Your task to perform on an android device: toggle notification dots Image 0: 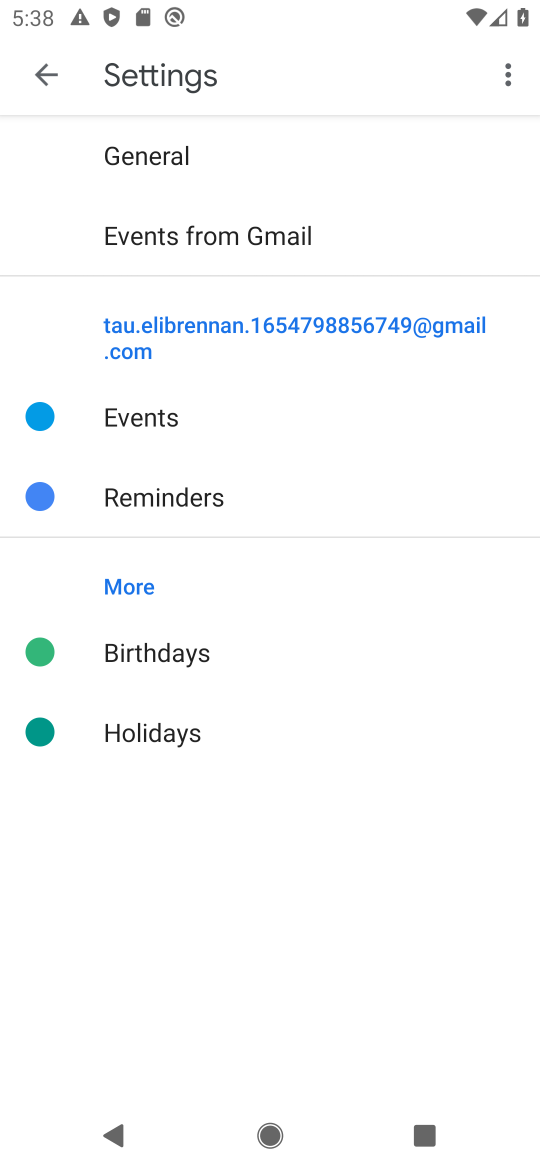
Step 0: press home button
Your task to perform on an android device: toggle notification dots Image 1: 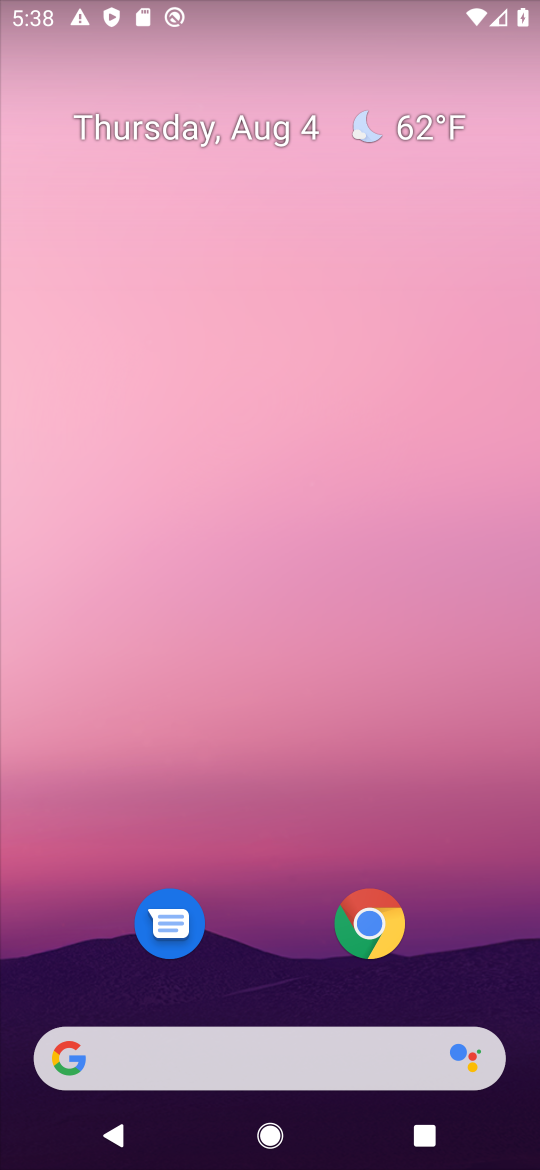
Step 1: drag from (291, 924) to (275, 275)
Your task to perform on an android device: toggle notification dots Image 2: 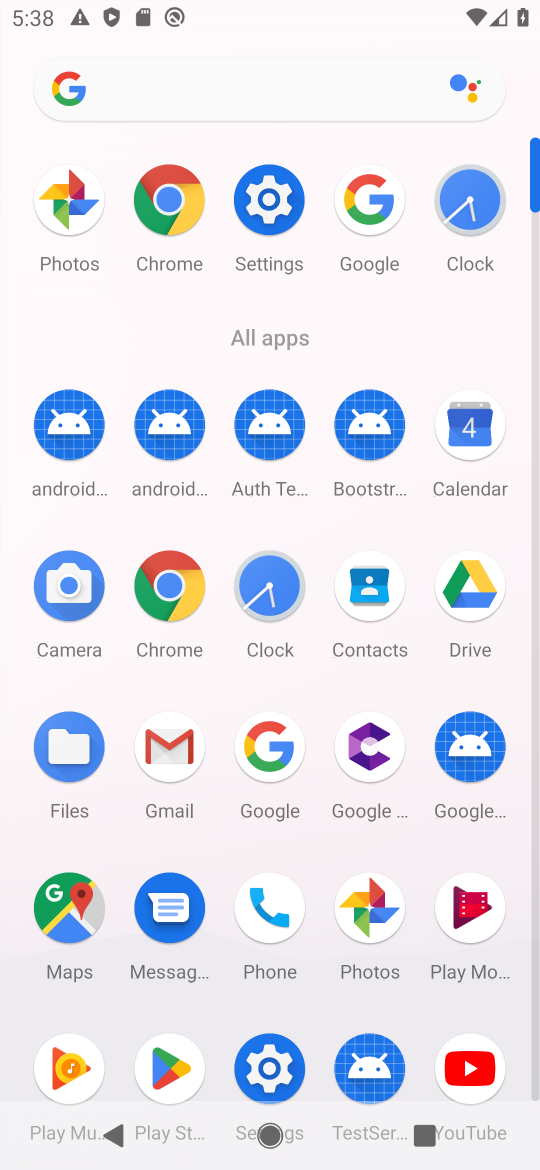
Step 2: click (266, 226)
Your task to perform on an android device: toggle notification dots Image 3: 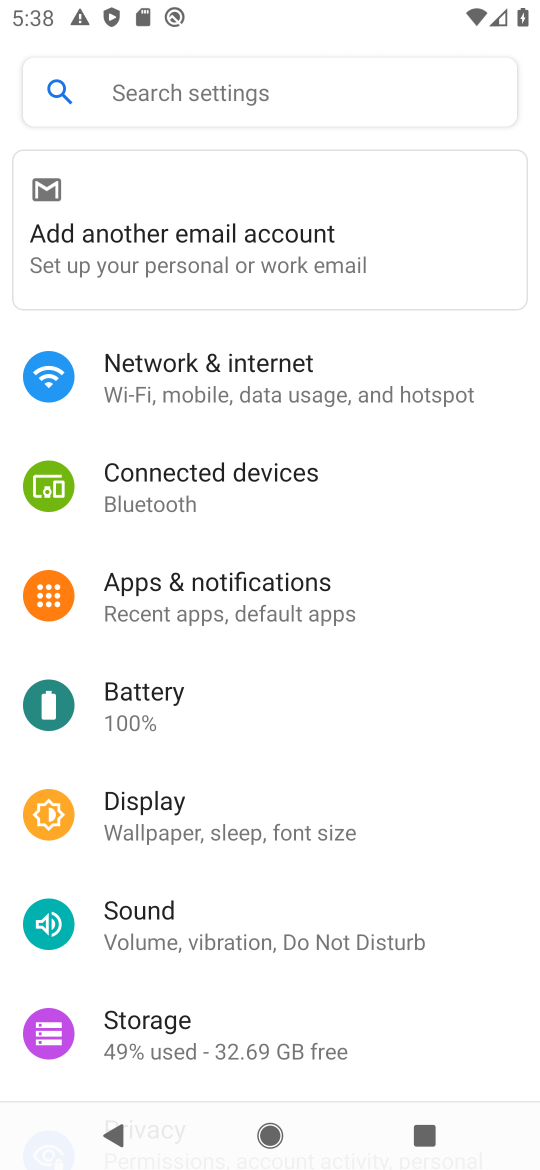
Step 3: click (256, 609)
Your task to perform on an android device: toggle notification dots Image 4: 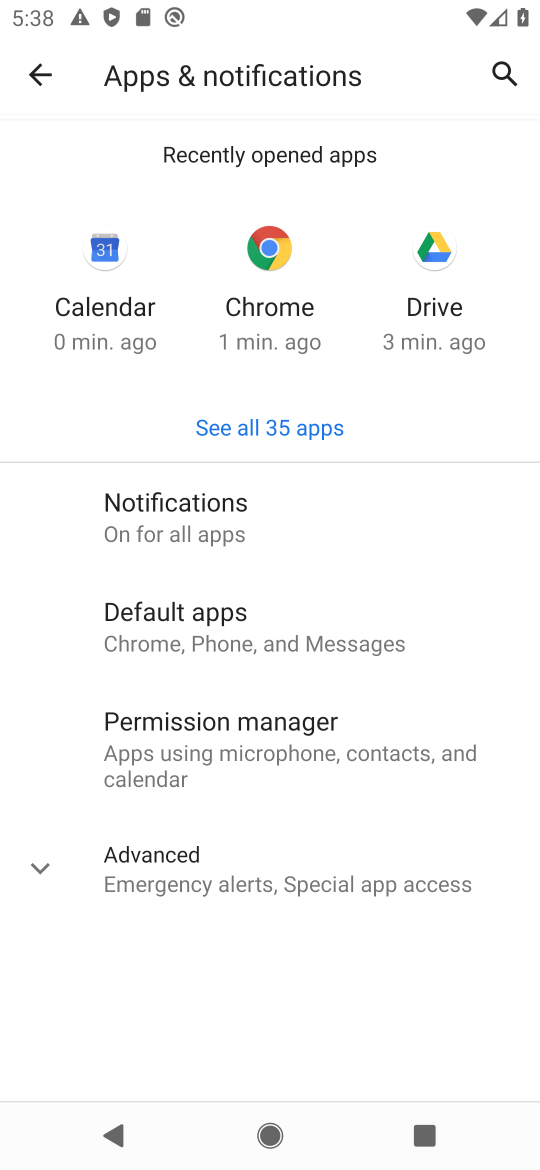
Step 4: click (284, 852)
Your task to perform on an android device: toggle notification dots Image 5: 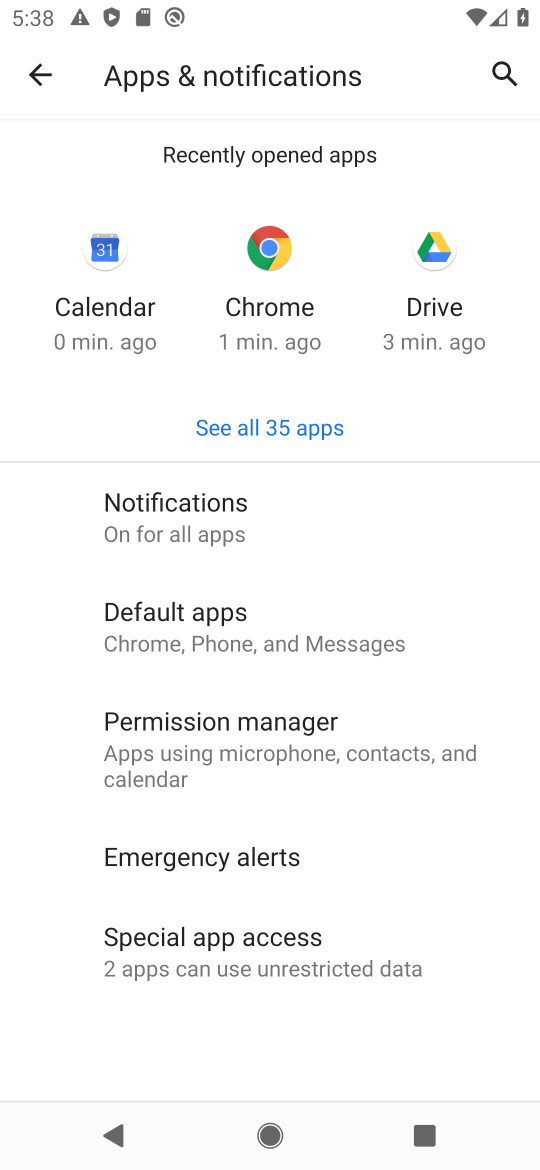
Step 5: click (192, 536)
Your task to perform on an android device: toggle notification dots Image 6: 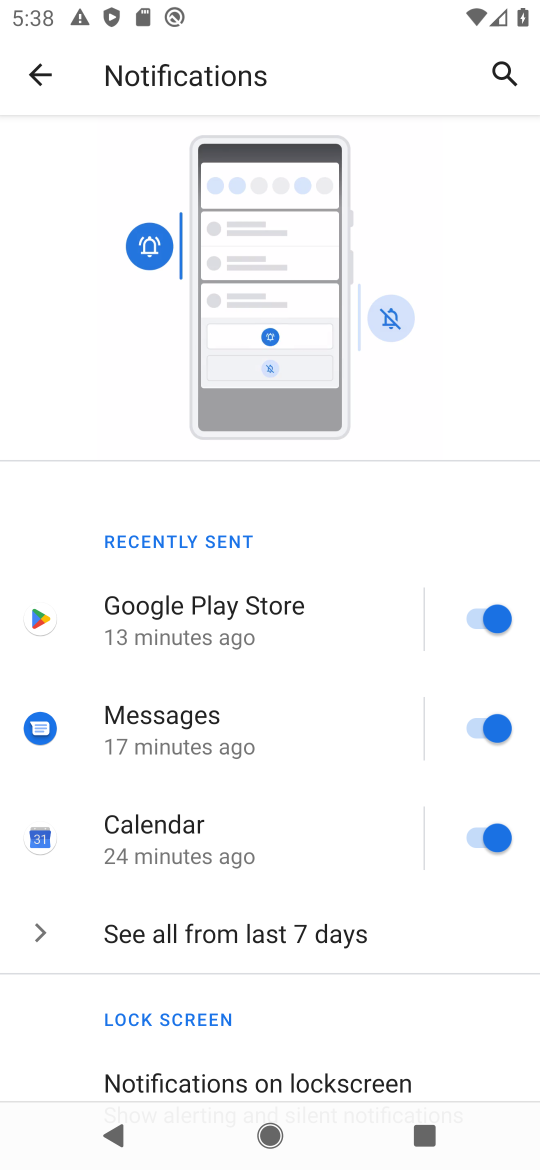
Step 6: drag from (310, 940) to (225, 541)
Your task to perform on an android device: toggle notification dots Image 7: 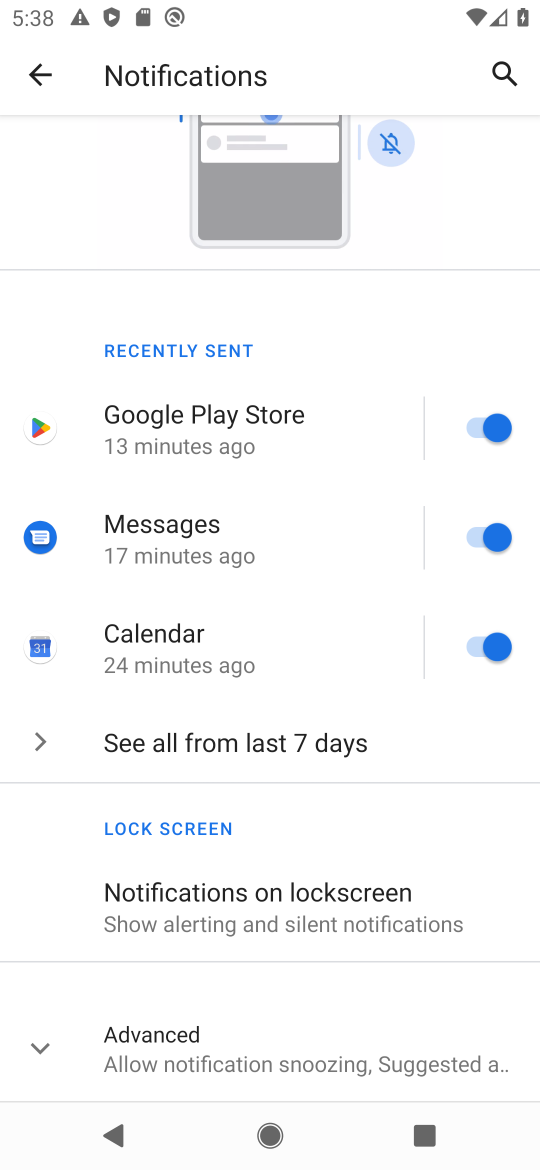
Step 7: drag from (385, 1012) to (287, 570)
Your task to perform on an android device: toggle notification dots Image 8: 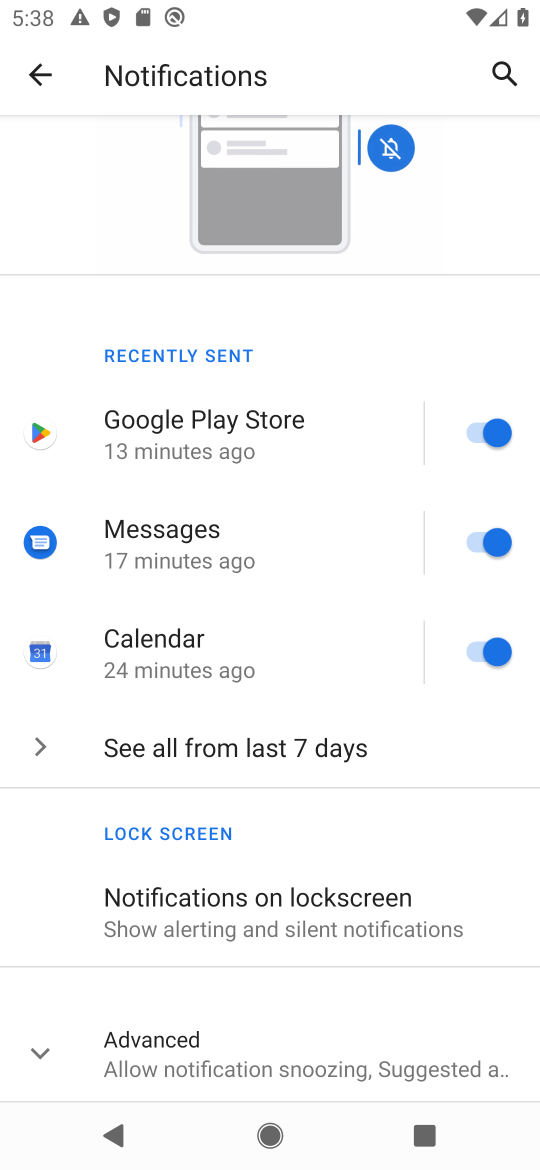
Step 8: click (391, 1030)
Your task to perform on an android device: toggle notification dots Image 9: 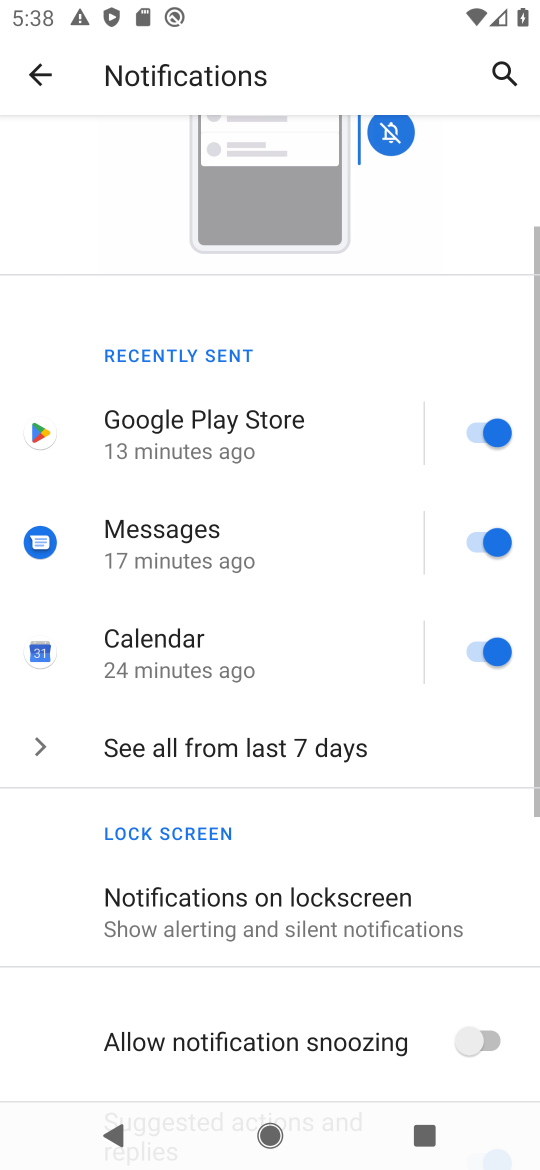
Step 9: drag from (391, 1030) to (321, 618)
Your task to perform on an android device: toggle notification dots Image 10: 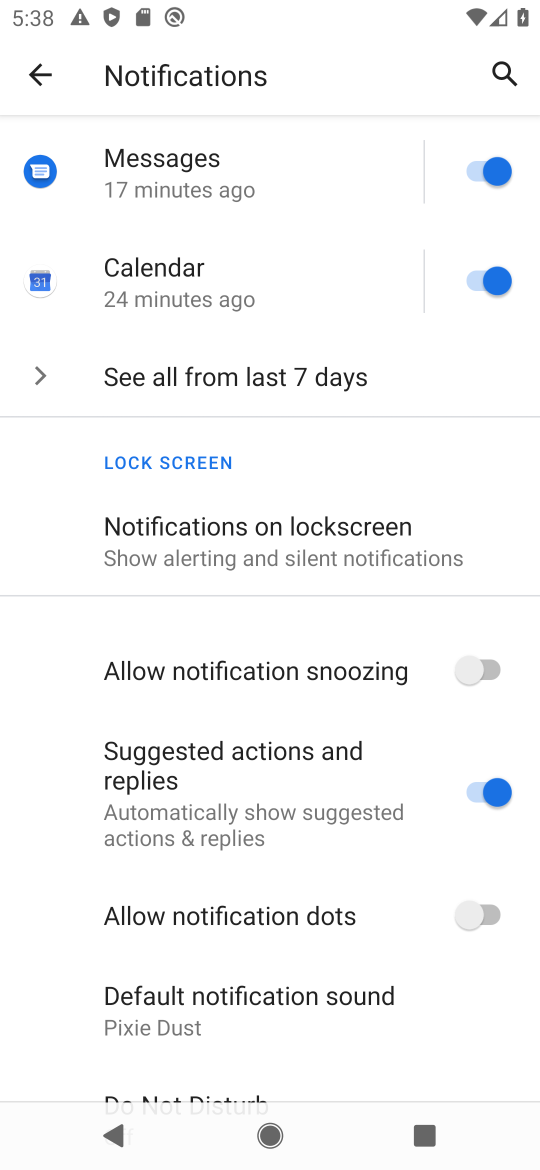
Step 10: drag from (413, 1047) to (363, 739)
Your task to perform on an android device: toggle notification dots Image 11: 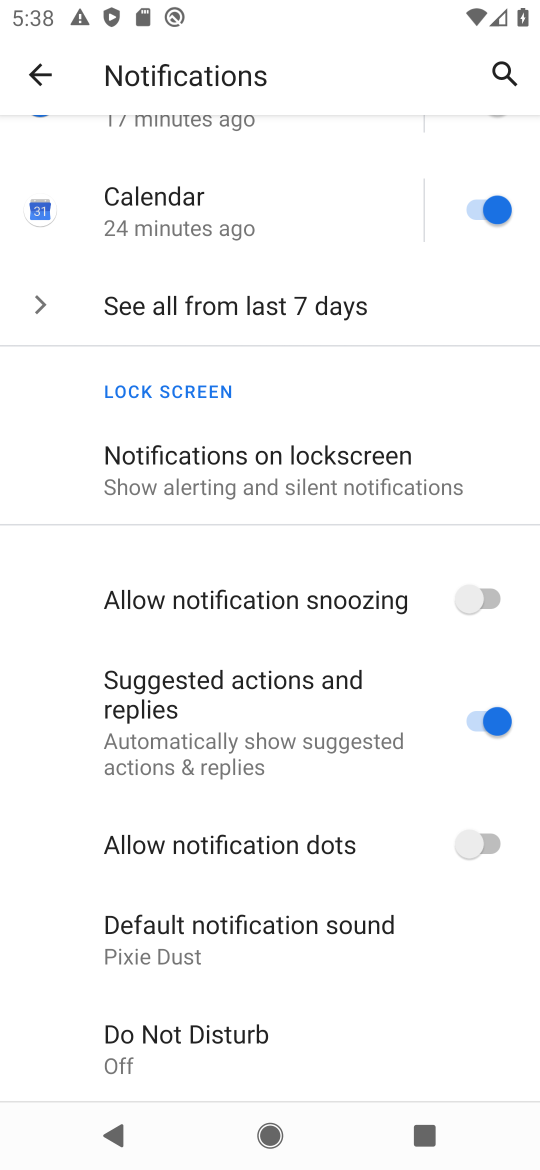
Step 11: click (475, 840)
Your task to perform on an android device: toggle notification dots Image 12: 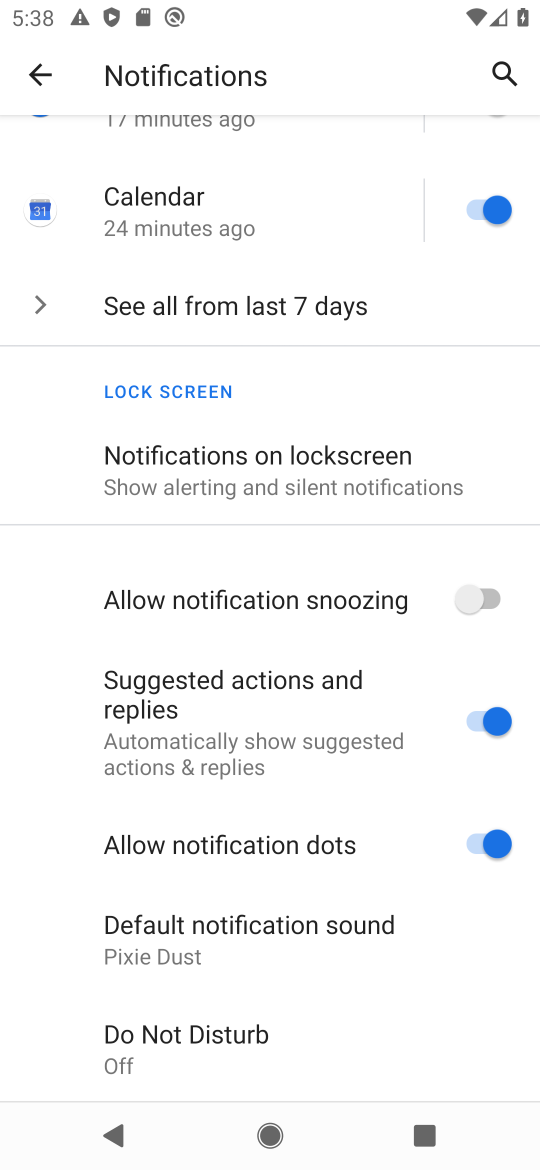
Step 12: task complete